Your task to perform on an android device: Open Google Maps Image 0: 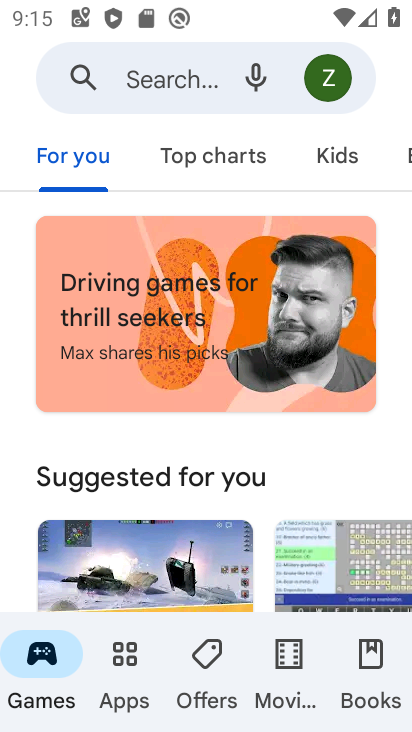
Step 0: press back button
Your task to perform on an android device: Open Google Maps Image 1: 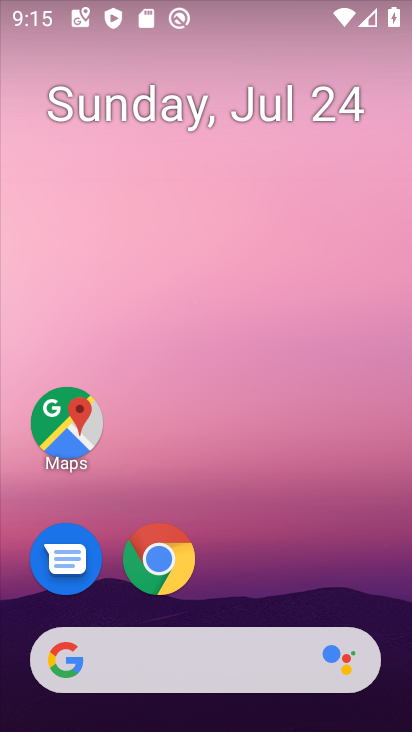
Step 1: click (81, 418)
Your task to perform on an android device: Open Google Maps Image 2: 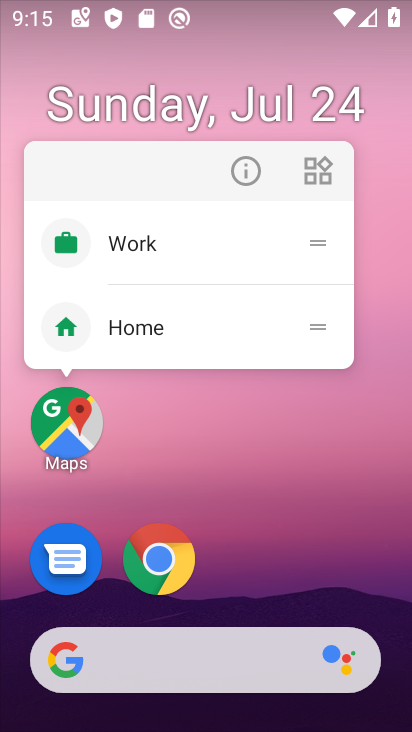
Step 2: click (78, 418)
Your task to perform on an android device: Open Google Maps Image 3: 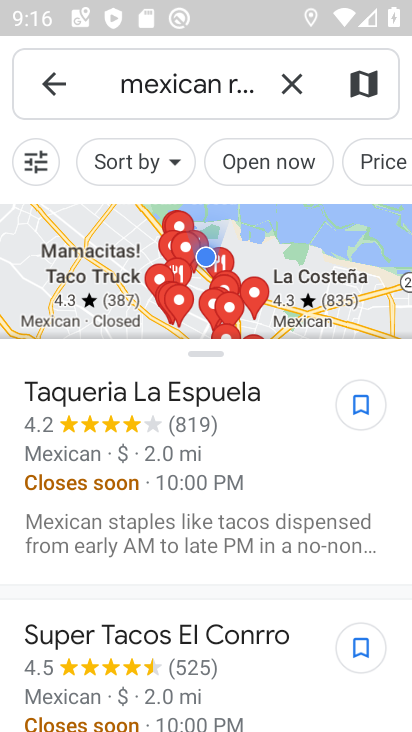
Step 3: task complete